Your task to perform on an android device: Open Amazon Image 0: 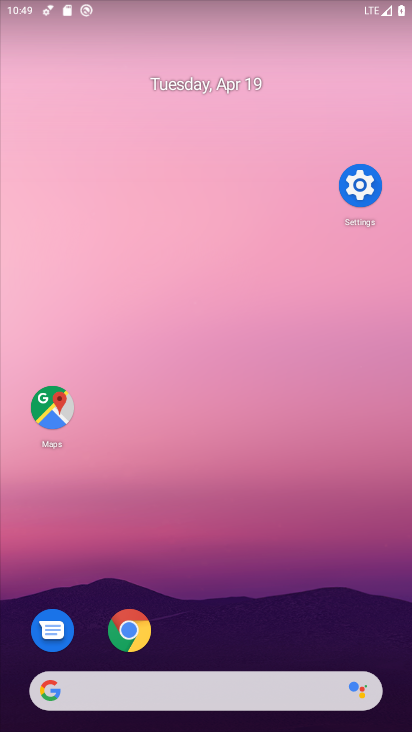
Step 0: drag from (237, 542) to (308, 178)
Your task to perform on an android device: Open Amazon Image 1: 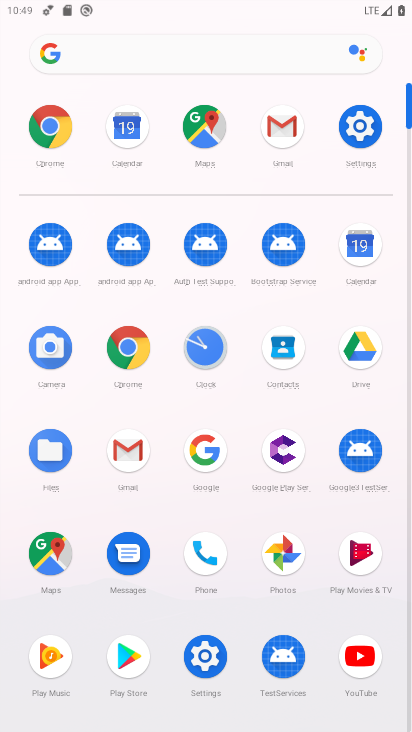
Step 1: click (51, 140)
Your task to perform on an android device: Open Amazon Image 2: 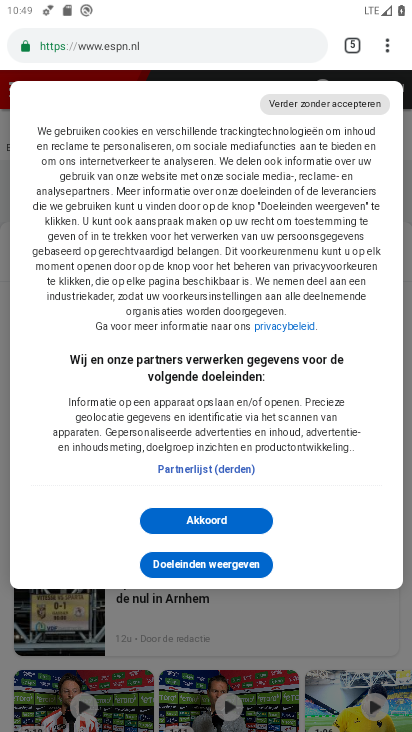
Step 2: drag from (350, 47) to (345, 268)
Your task to perform on an android device: Open Amazon Image 3: 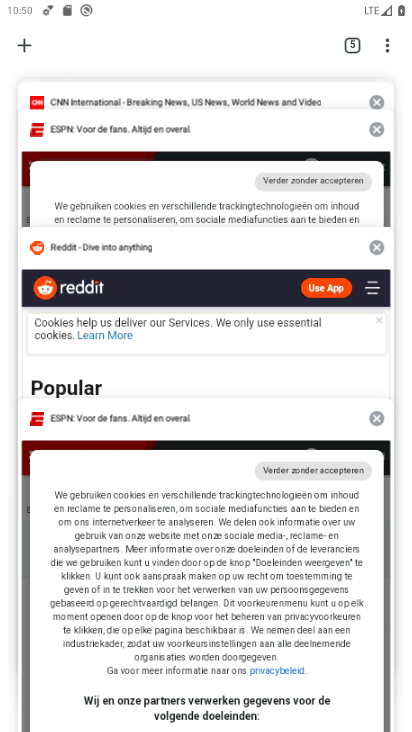
Step 3: click (28, 52)
Your task to perform on an android device: Open Amazon Image 4: 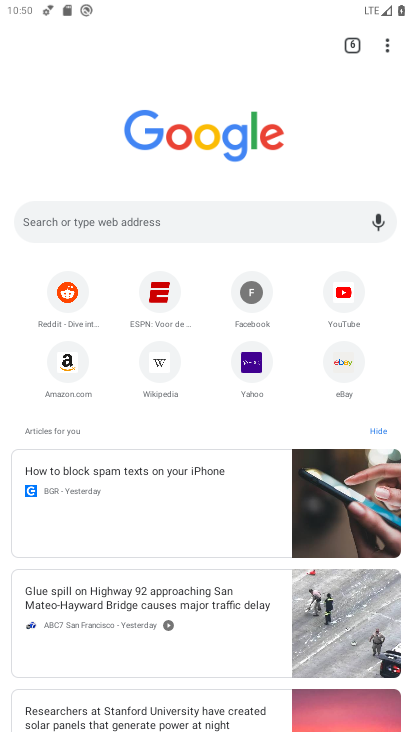
Step 4: click (77, 370)
Your task to perform on an android device: Open Amazon Image 5: 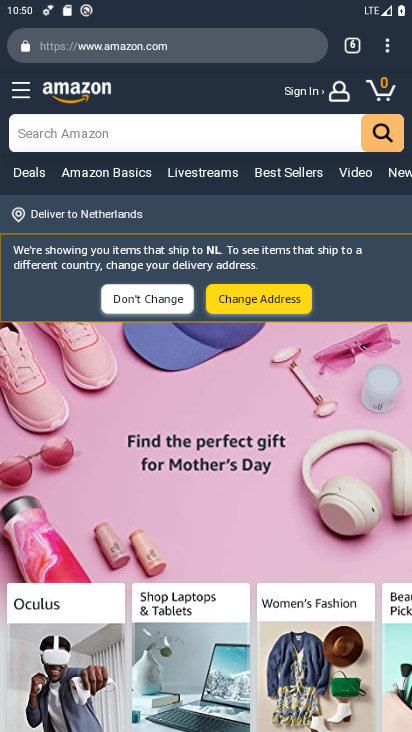
Step 5: task complete